Your task to perform on an android device: Play the last video I watched on Youtube Image 0: 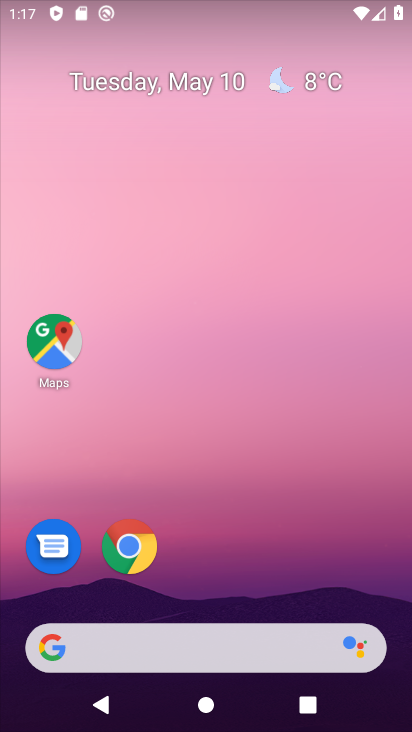
Step 0: drag from (393, 644) to (299, 101)
Your task to perform on an android device: Play the last video I watched on Youtube Image 1: 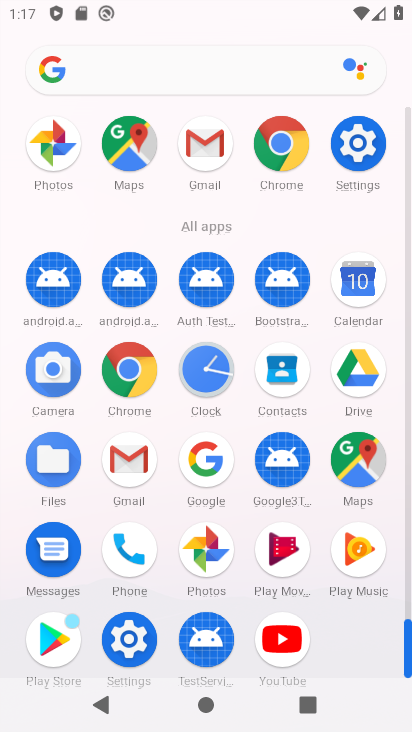
Step 1: click (282, 636)
Your task to perform on an android device: Play the last video I watched on Youtube Image 2: 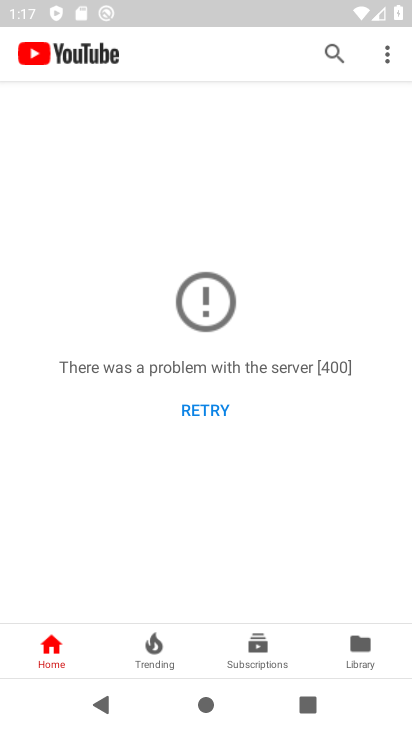
Step 2: click (357, 652)
Your task to perform on an android device: Play the last video I watched on Youtube Image 3: 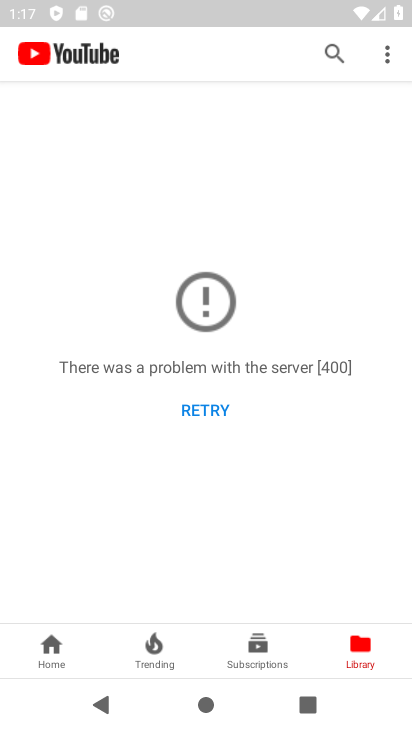
Step 3: click (197, 409)
Your task to perform on an android device: Play the last video I watched on Youtube Image 4: 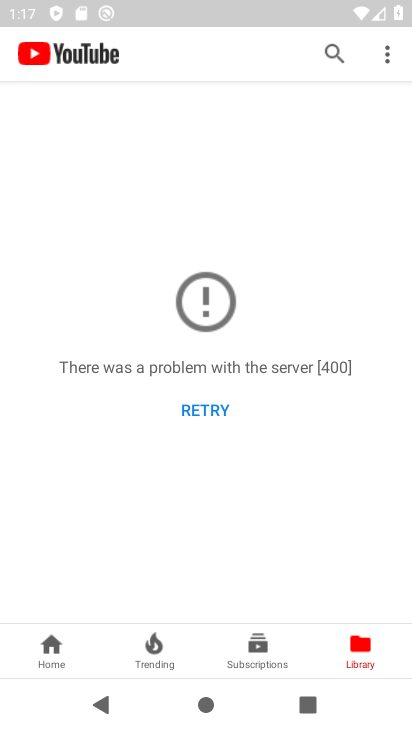
Step 4: click (190, 410)
Your task to perform on an android device: Play the last video I watched on Youtube Image 5: 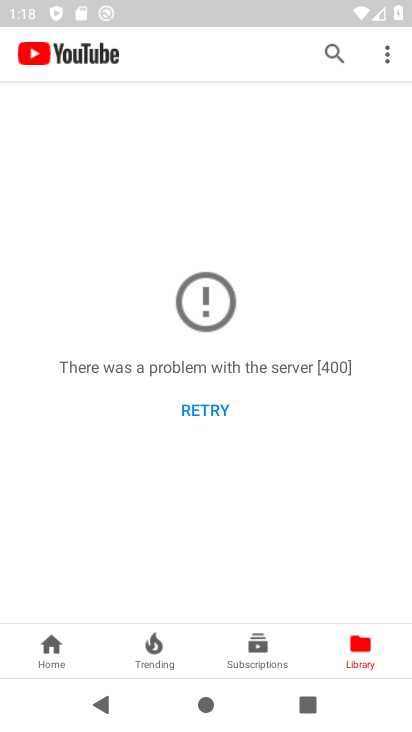
Step 5: task complete